Your task to perform on an android device: see creations saved in the google photos Image 0: 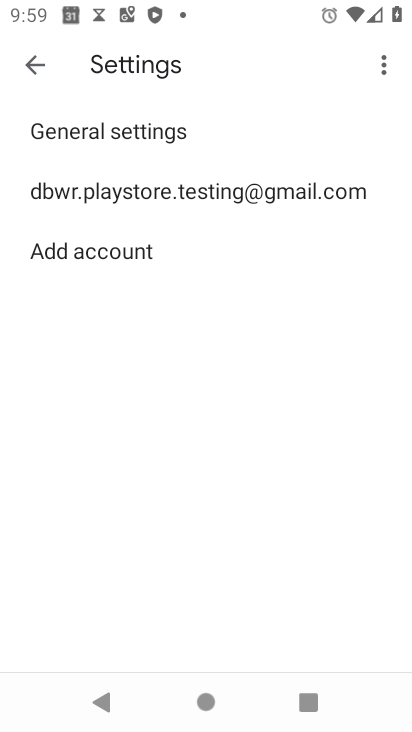
Step 0: press home button
Your task to perform on an android device: see creations saved in the google photos Image 1: 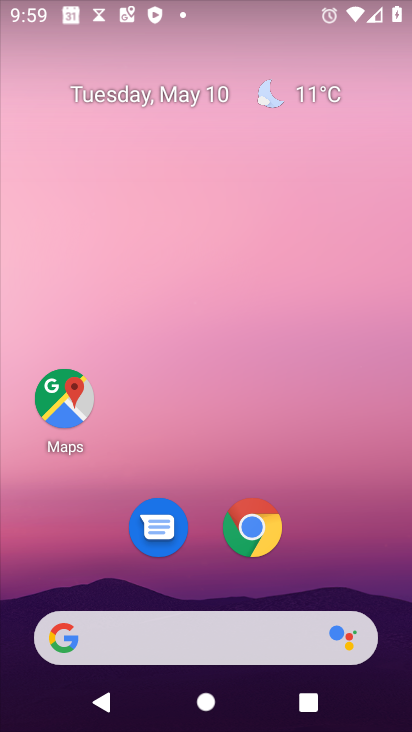
Step 1: drag from (341, 515) to (276, 88)
Your task to perform on an android device: see creations saved in the google photos Image 2: 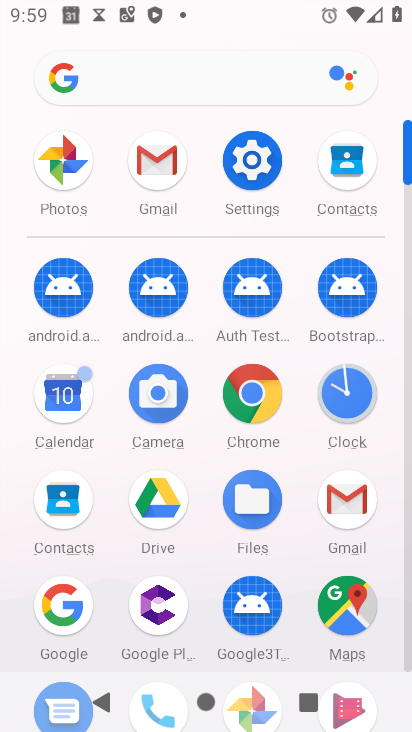
Step 2: click (57, 157)
Your task to perform on an android device: see creations saved in the google photos Image 3: 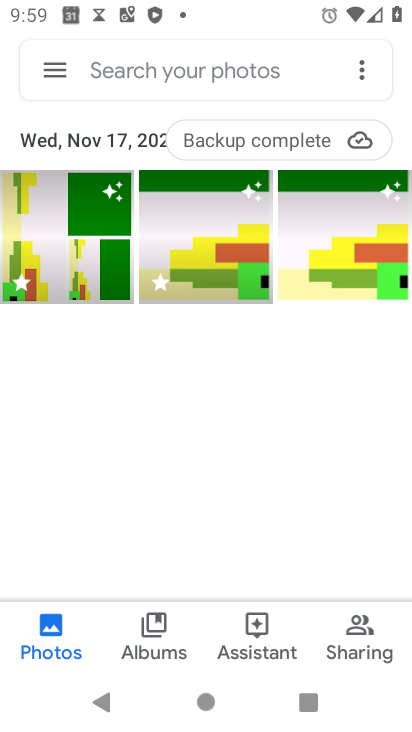
Step 3: click (158, 84)
Your task to perform on an android device: see creations saved in the google photos Image 4: 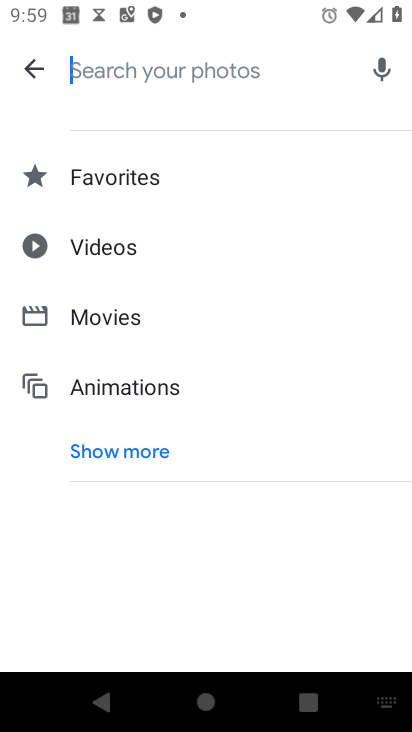
Step 4: click (158, 455)
Your task to perform on an android device: see creations saved in the google photos Image 5: 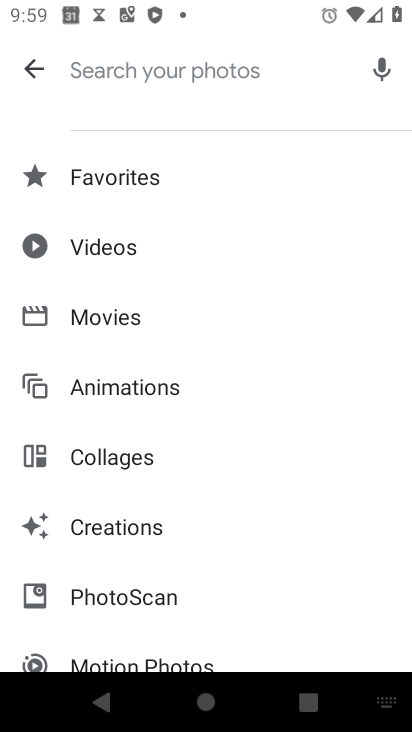
Step 5: click (159, 530)
Your task to perform on an android device: see creations saved in the google photos Image 6: 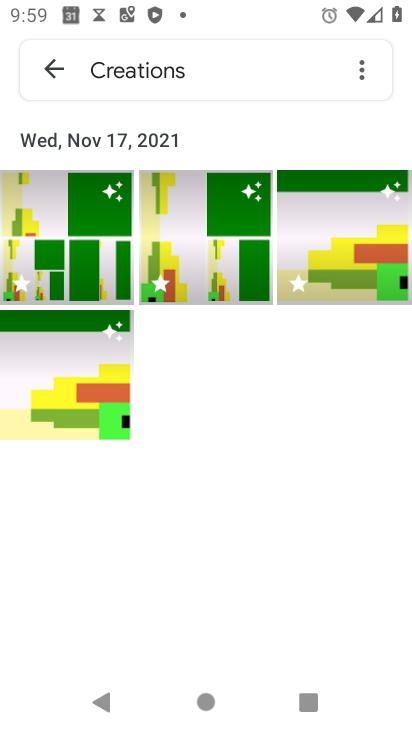
Step 6: task complete